Your task to perform on an android device: Go to battery settings Image 0: 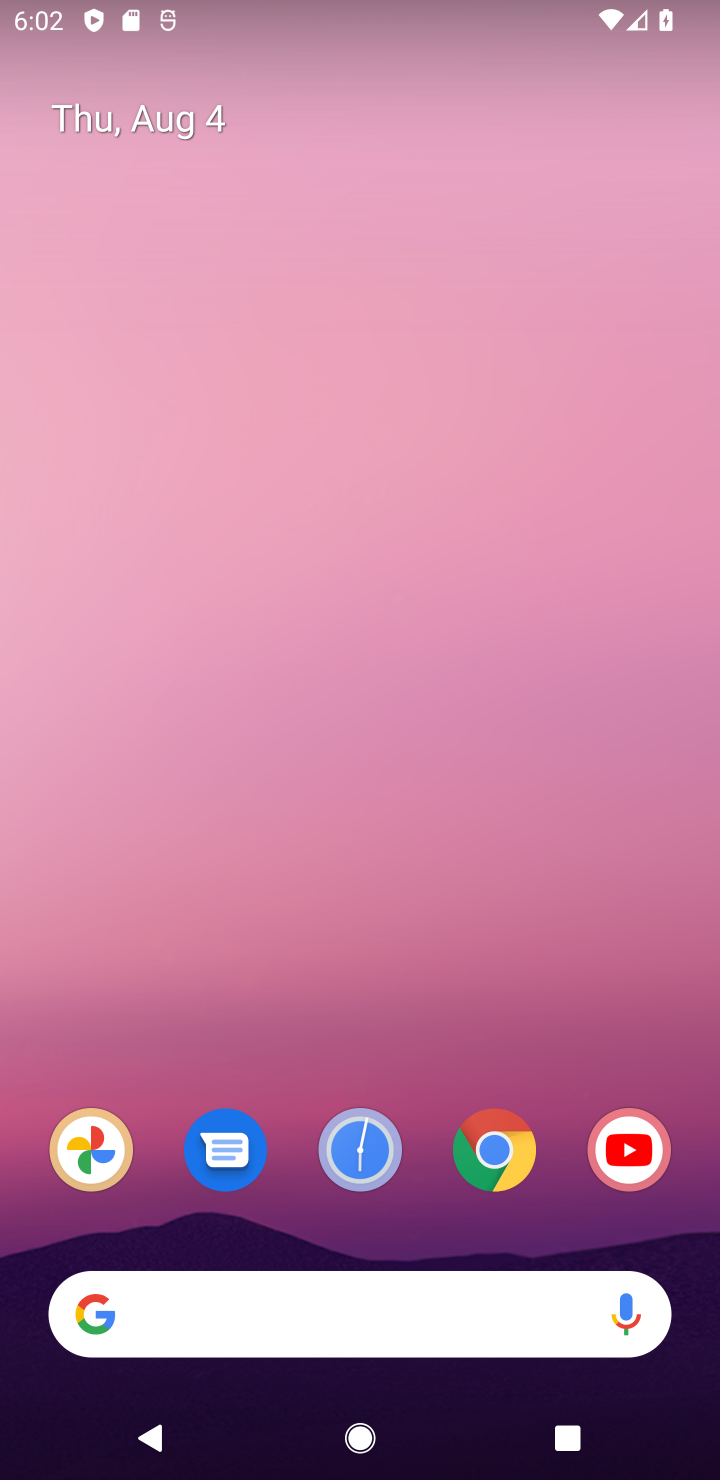
Step 0: drag from (429, 1287) to (445, 33)
Your task to perform on an android device: Go to battery settings Image 1: 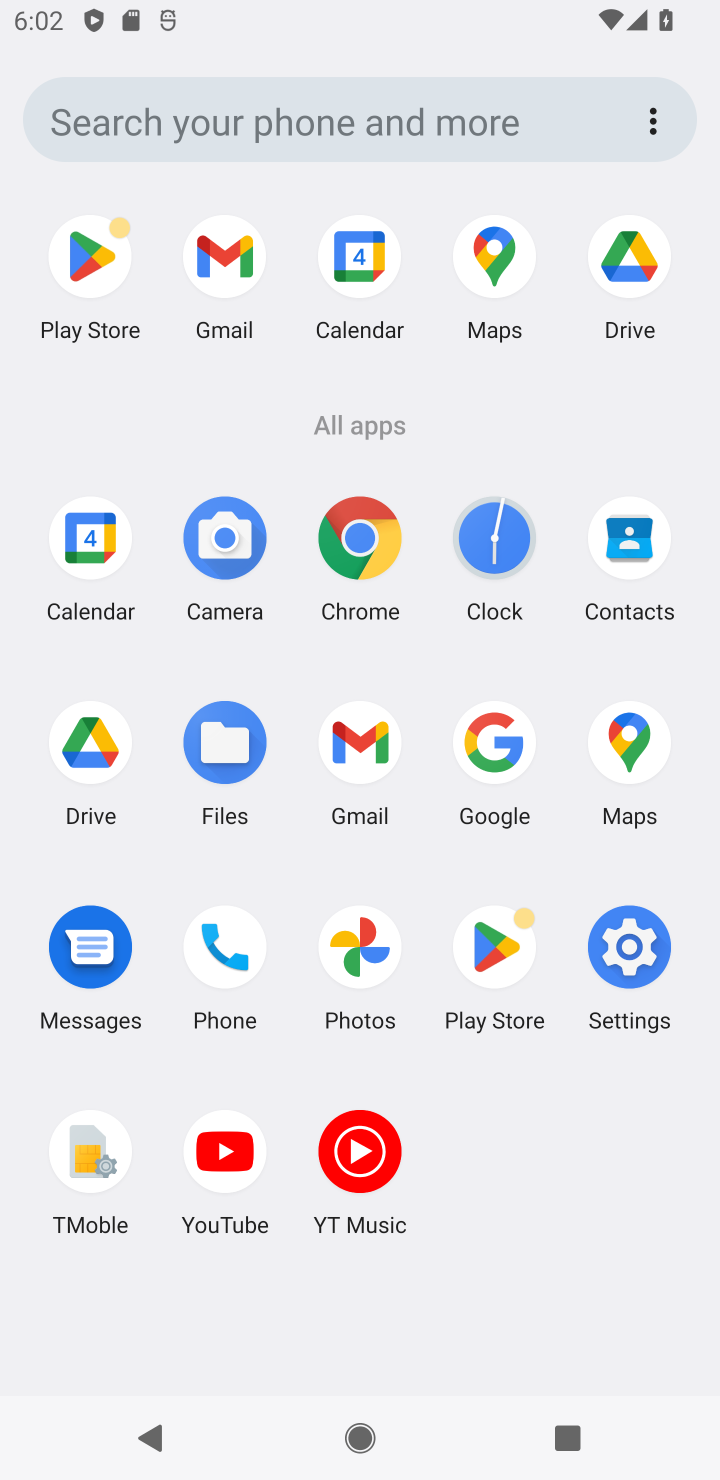
Step 1: click (354, 954)
Your task to perform on an android device: Go to battery settings Image 2: 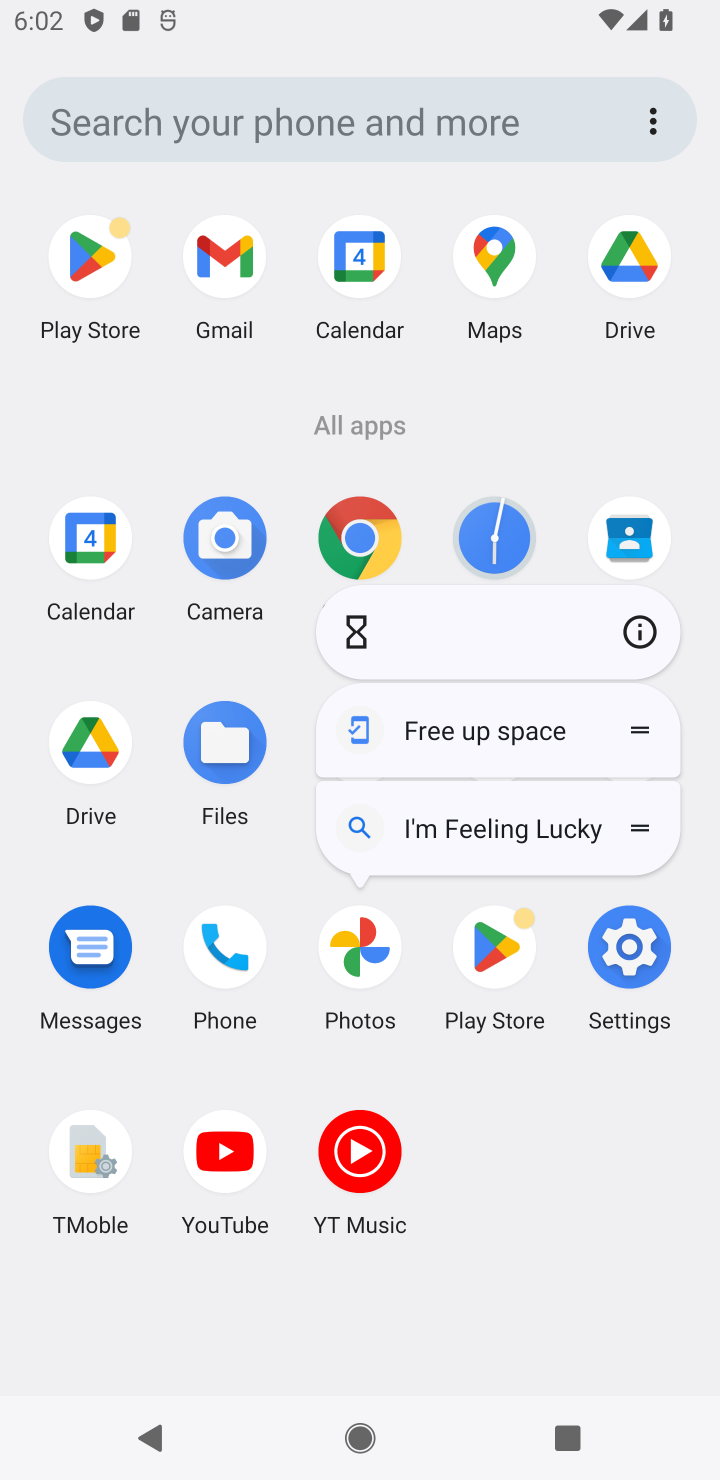
Step 2: click (354, 954)
Your task to perform on an android device: Go to battery settings Image 3: 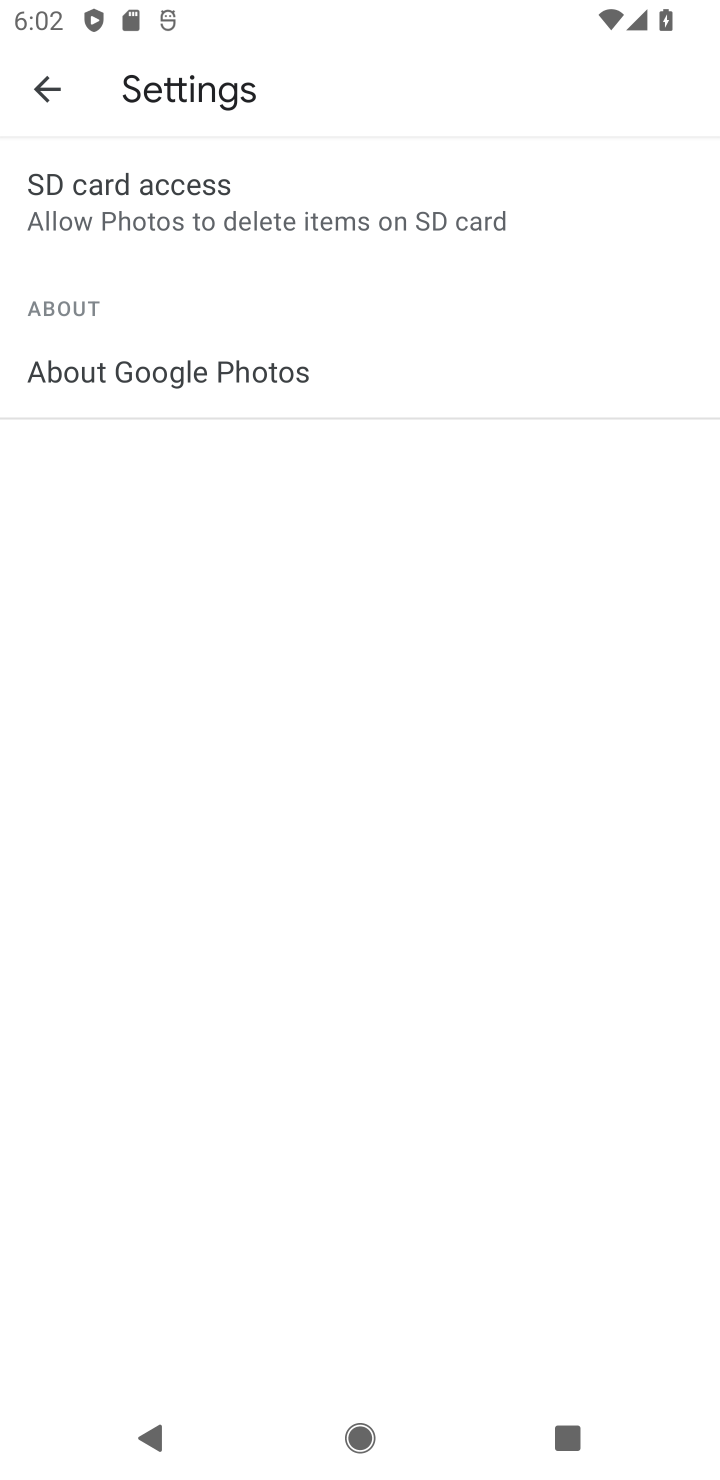
Step 3: press back button
Your task to perform on an android device: Go to battery settings Image 4: 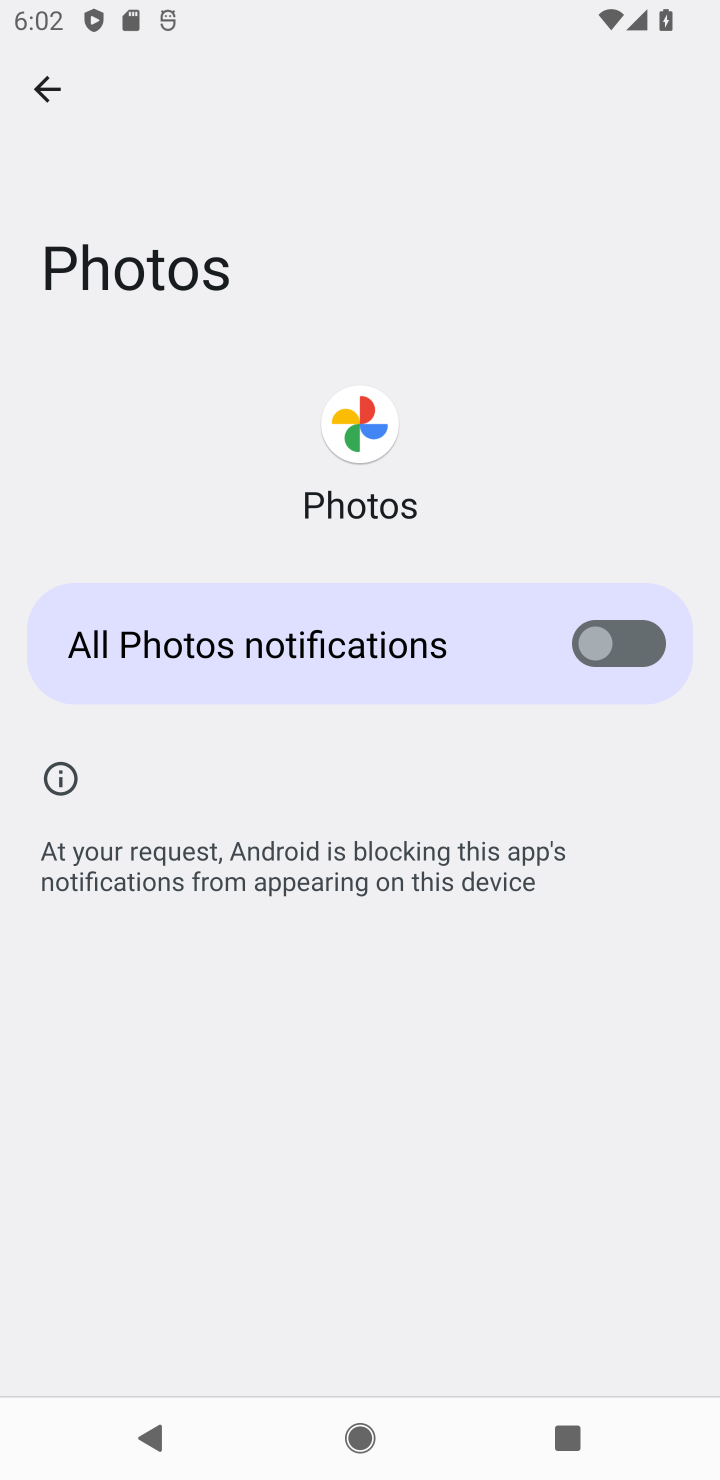
Step 4: press back button
Your task to perform on an android device: Go to battery settings Image 5: 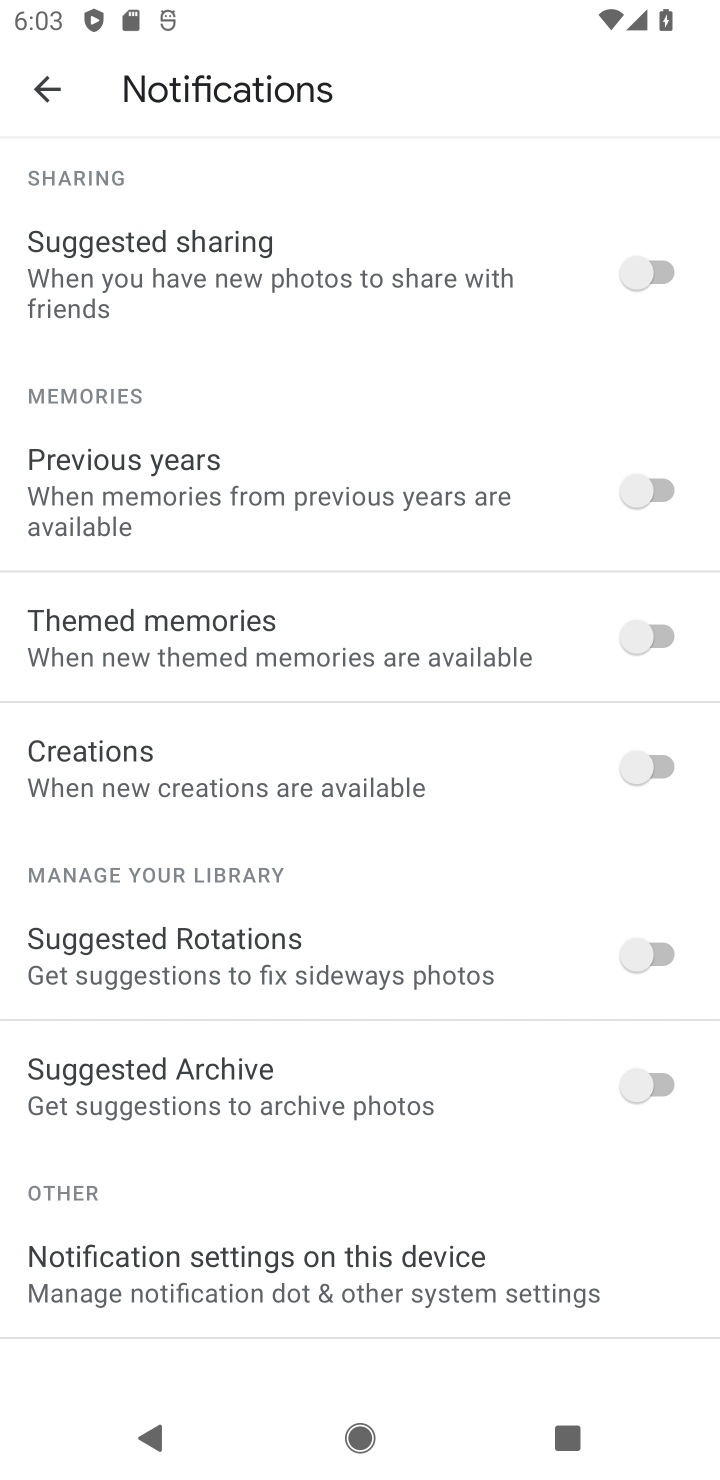
Step 5: press back button
Your task to perform on an android device: Go to battery settings Image 6: 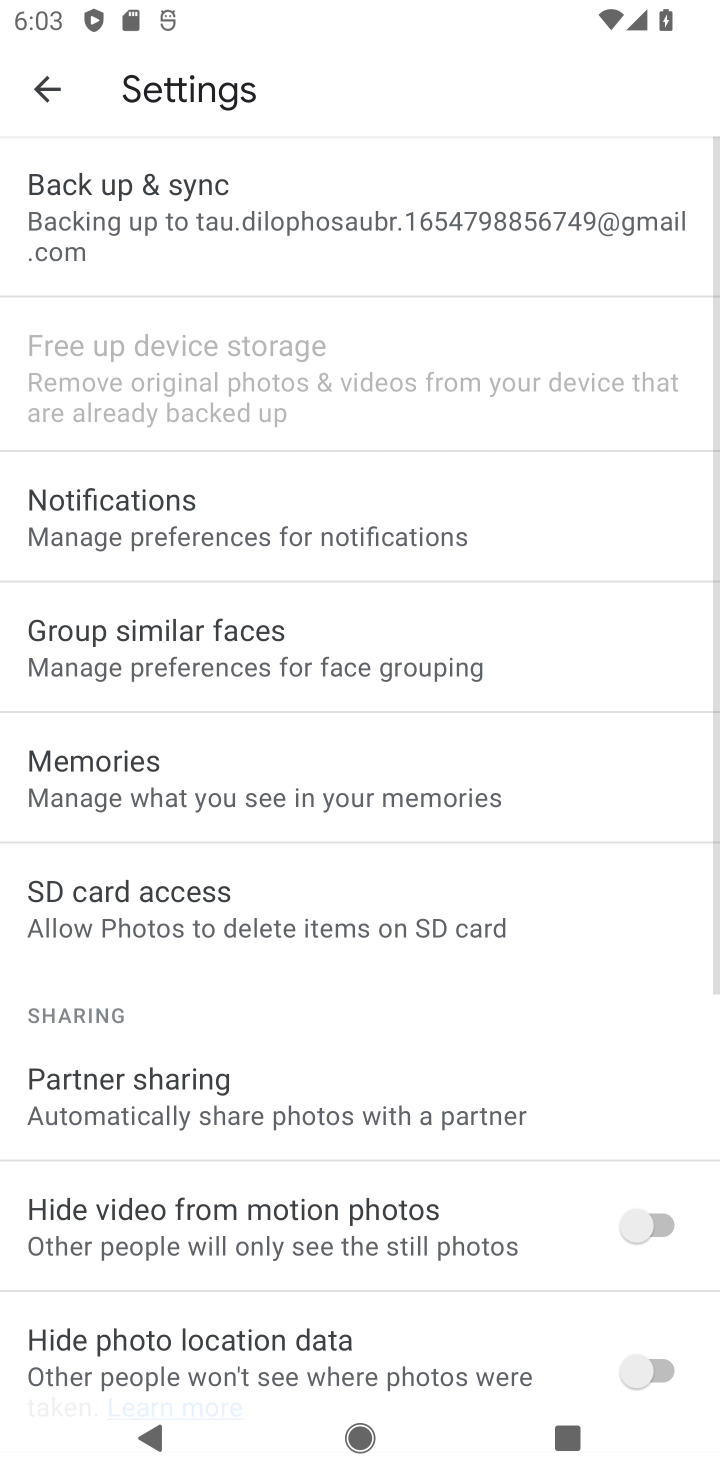
Step 6: press home button
Your task to perform on an android device: Go to battery settings Image 7: 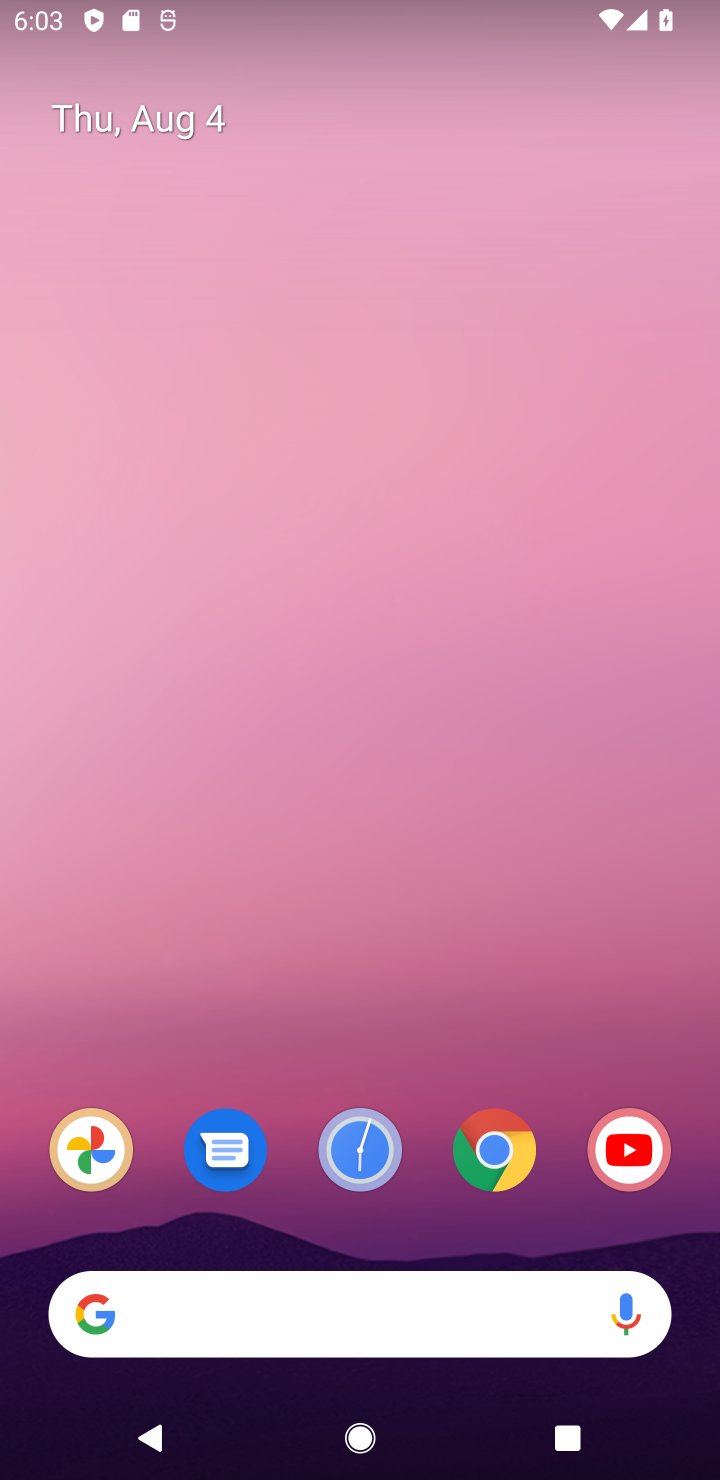
Step 7: drag from (451, 1279) to (468, 49)
Your task to perform on an android device: Go to battery settings Image 8: 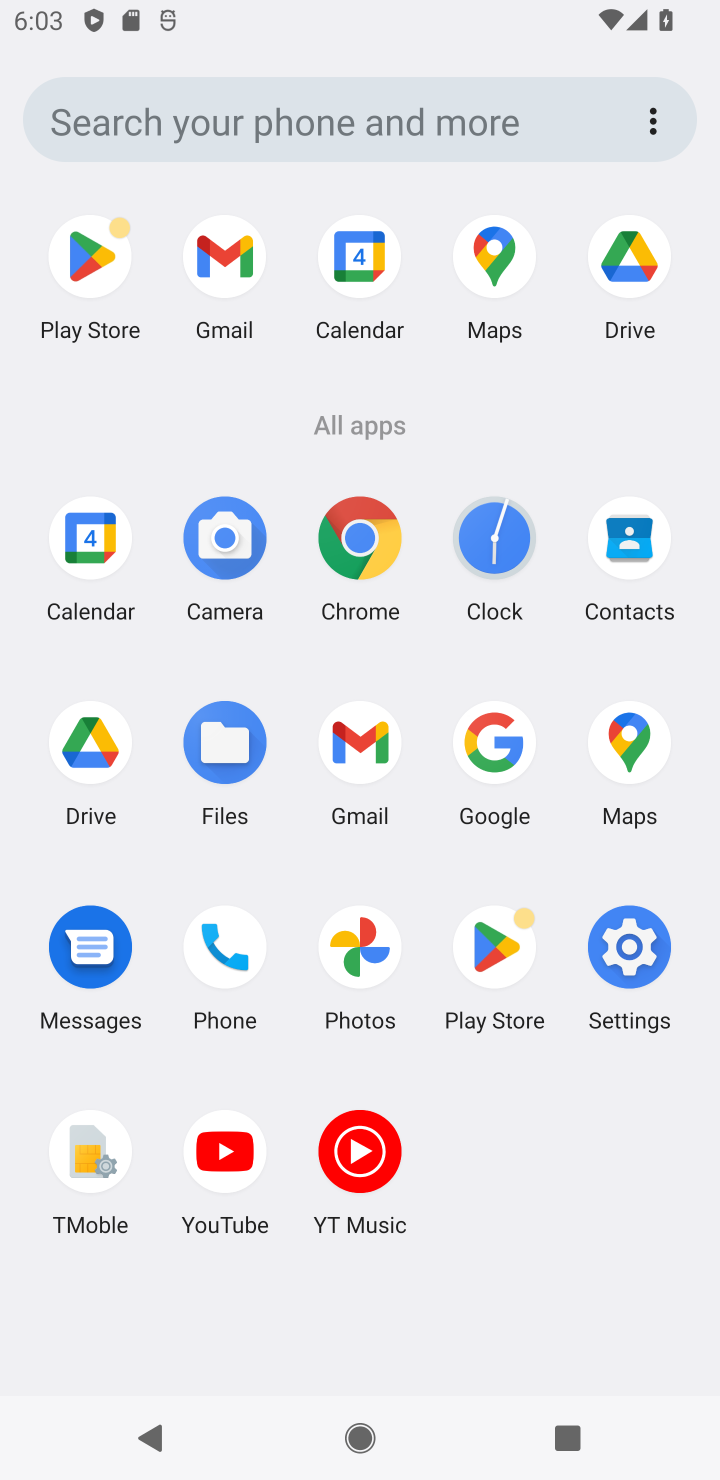
Step 8: click (622, 940)
Your task to perform on an android device: Go to battery settings Image 9: 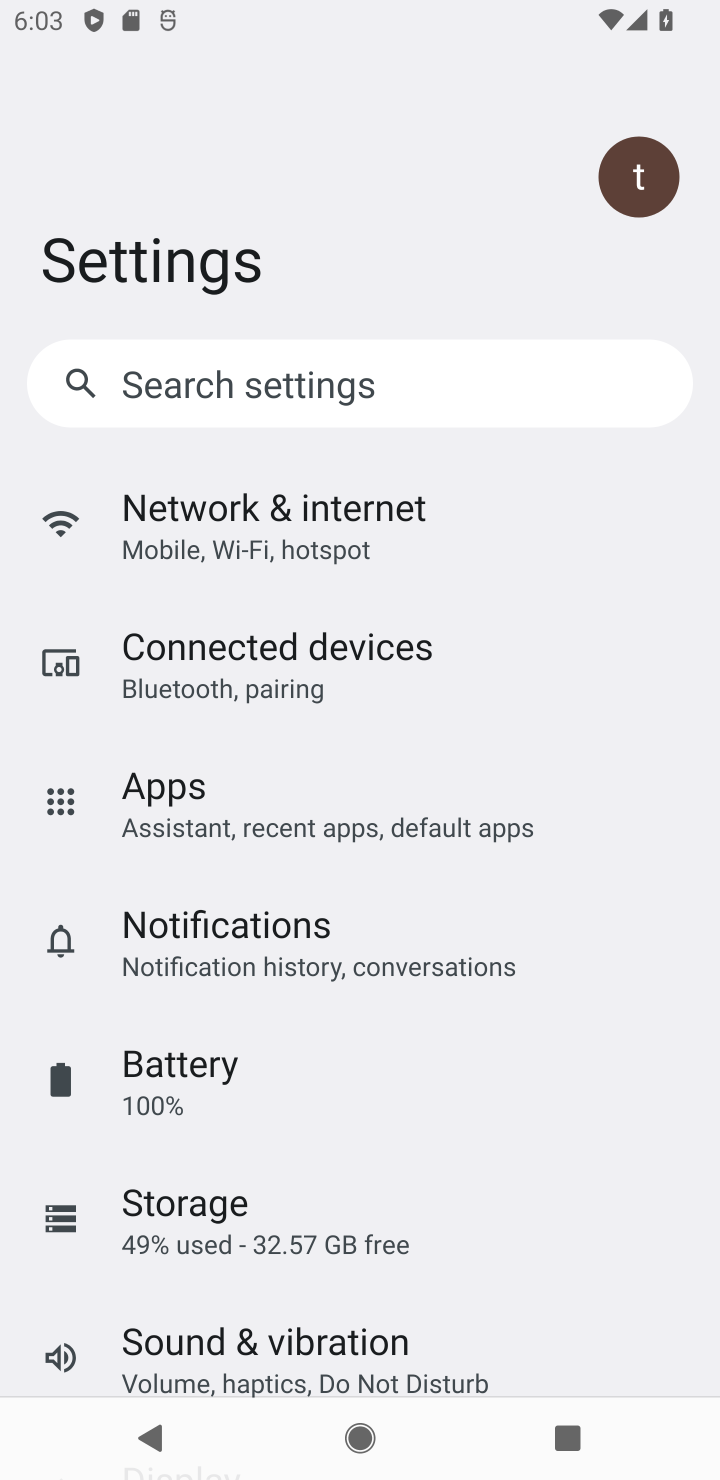
Step 9: click (267, 1076)
Your task to perform on an android device: Go to battery settings Image 10: 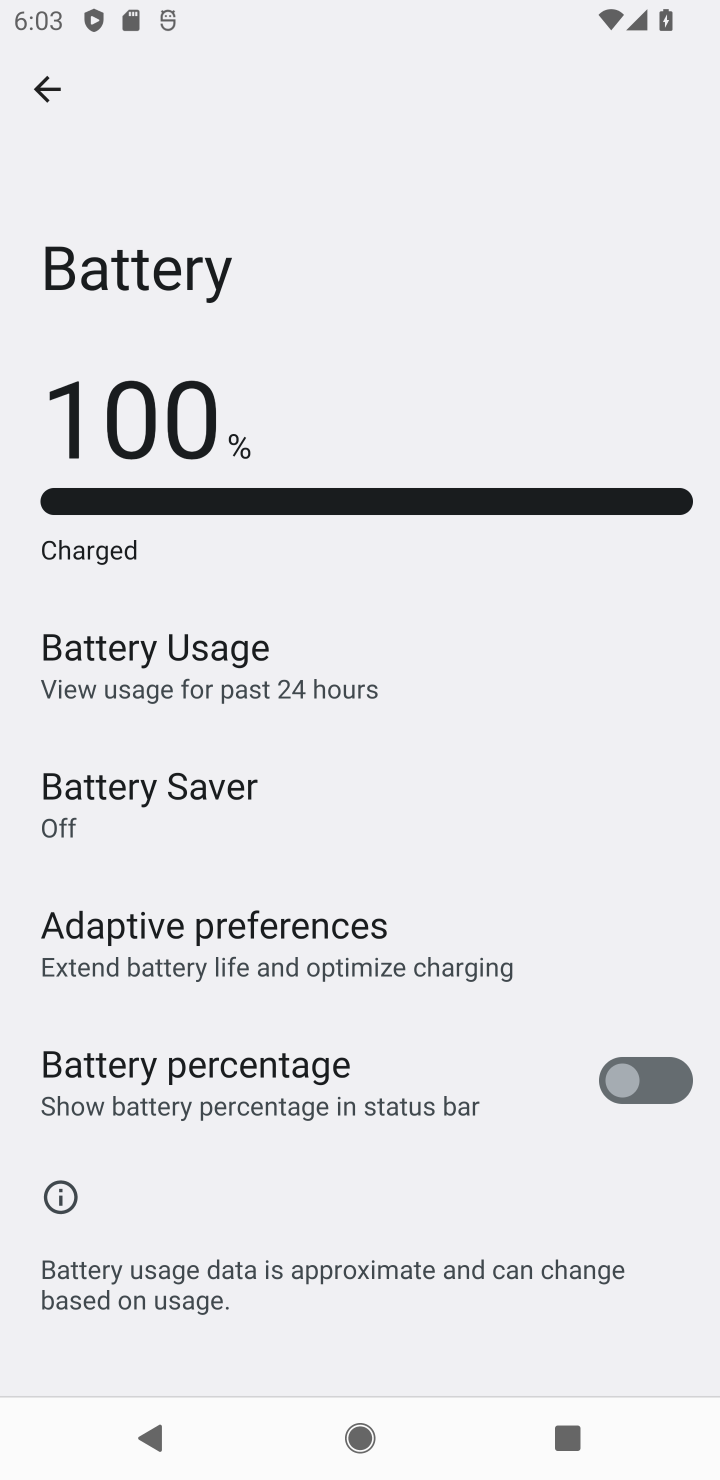
Step 10: task complete